Your task to perform on an android device: Open Android settings Image 0: 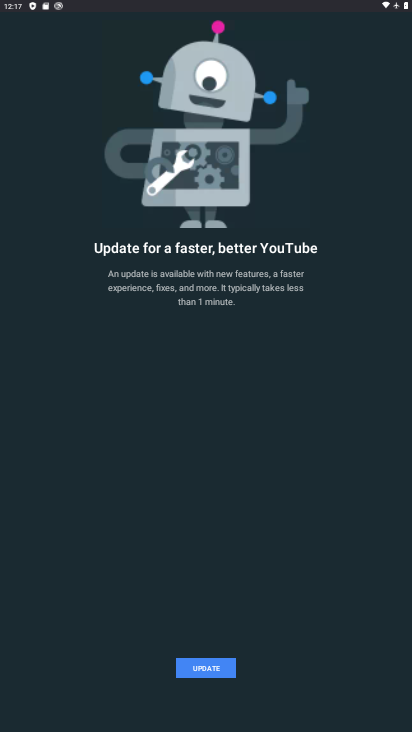
Step 0: press home button
Your task to perform on an android device: Open Android settings Image 1: 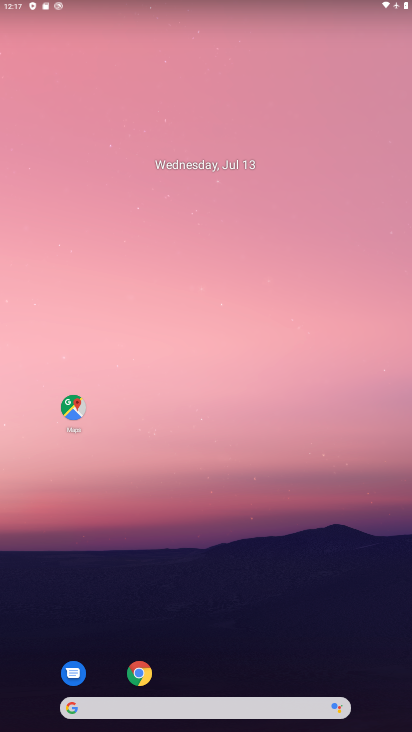
Step 1: drag from (212, 651) to (263, 85)
Your task to perform on an android device: Open Android settings Image 2: 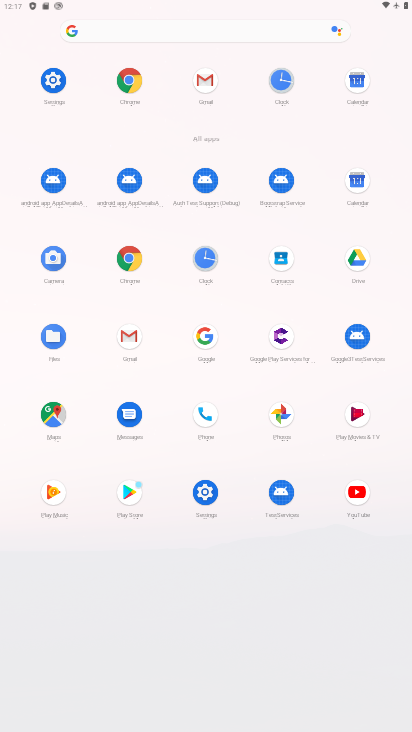
Step 2: click (66, 85)
Your task to perform on an android device: Open Android settings Image 3: 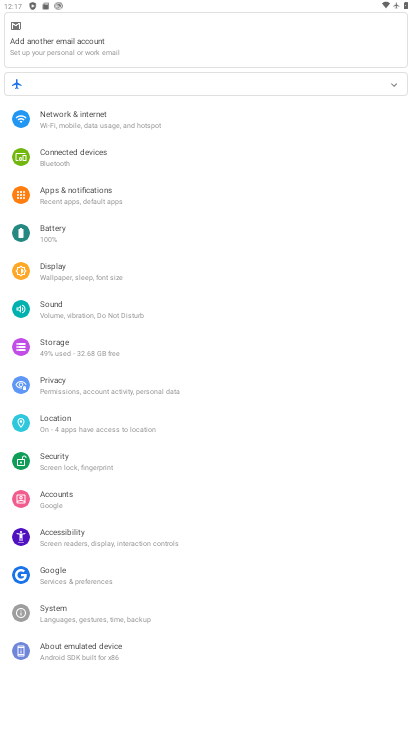
Step 3: click (118, 643)
Your task to perform on an android device: Open Android settings Image 4: 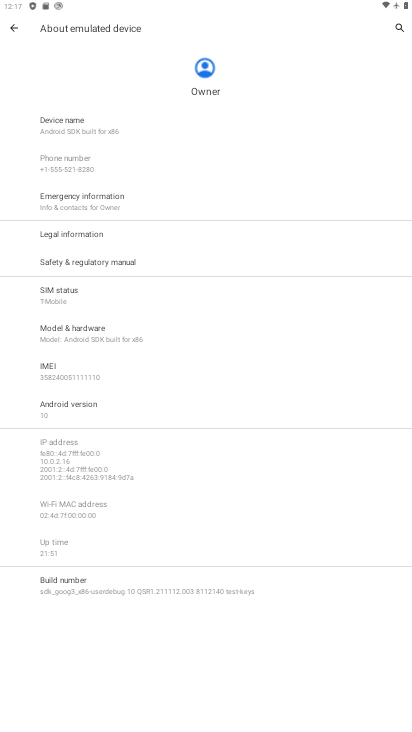
Step 4: task complete